Your task to perform on an android device: Go to Google Image 0: 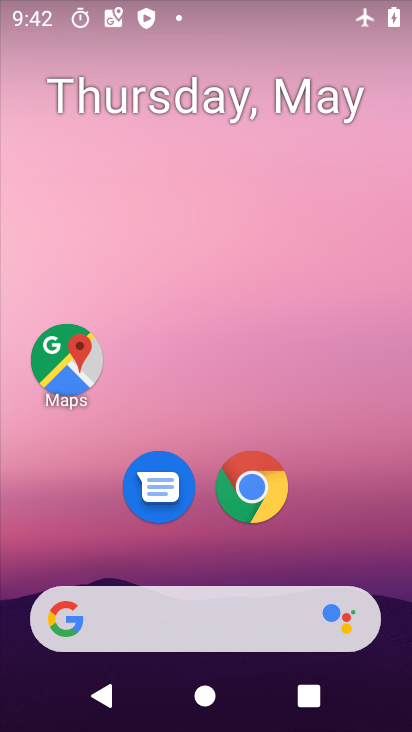
Step 0: drag from (215, 581) to (213, 198)
Your task to perform on an android device: Go to Google Image 1: 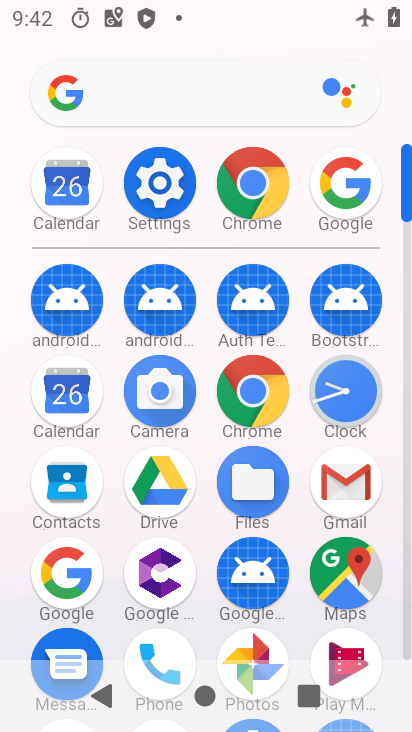
Step 1: click (74, 580)
Your task to perform on an android device: Go to Google Image 2: 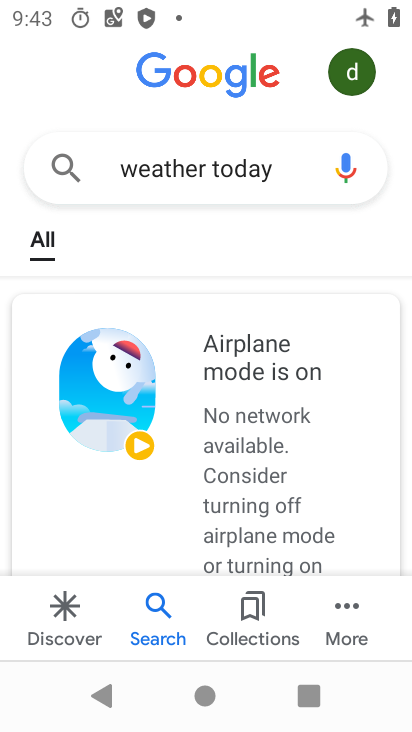
Step 2: task complete